Your task to perform on an android device: Open Google Maps and go to "Timeline" Image 0: 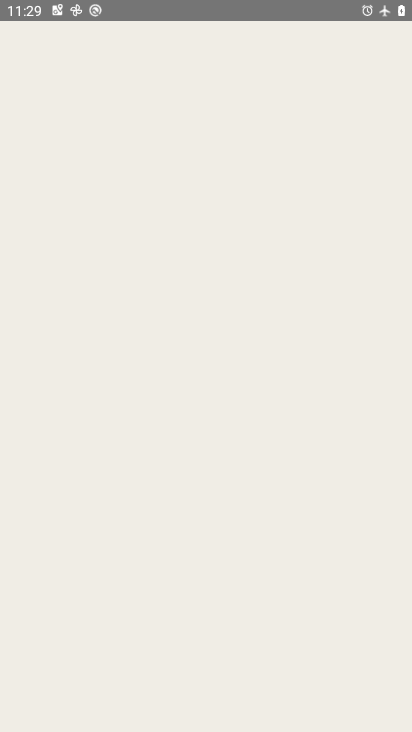
Step 0: press home button
Your task to perform on an android device: Open Google Maps and go to "Timeline" Image 1: 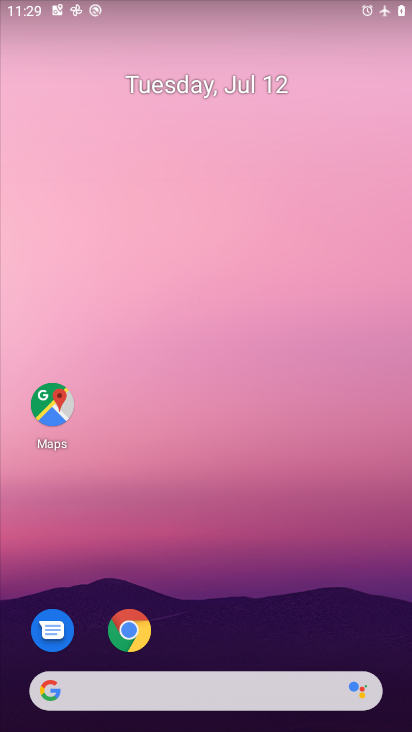
Step 1: press home button
Your task to perform on an android device: Open Google Maps and go to "Timeline" Image 2: 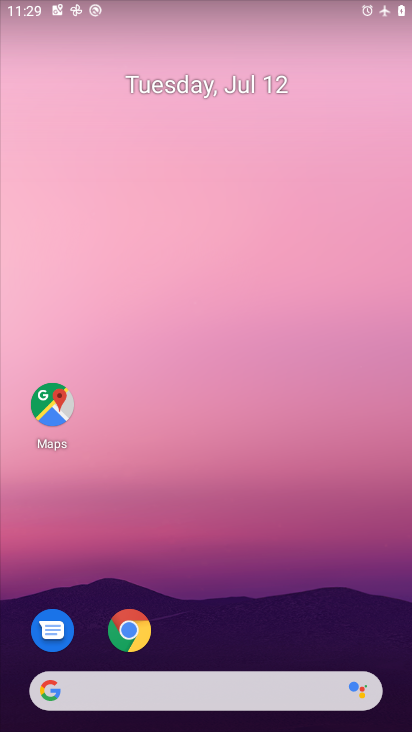
Step 2: click (46, 394)
Your task to perform on an android device: Open Google Maps and go to "Timeline" Image 3: 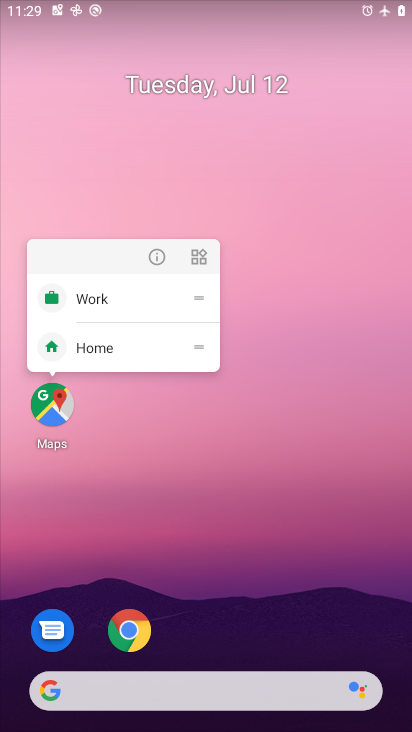
Step 3: click (42, 416)
Your task to perform on an android device: Open Google Maps and go to "Timeline" Image 4: 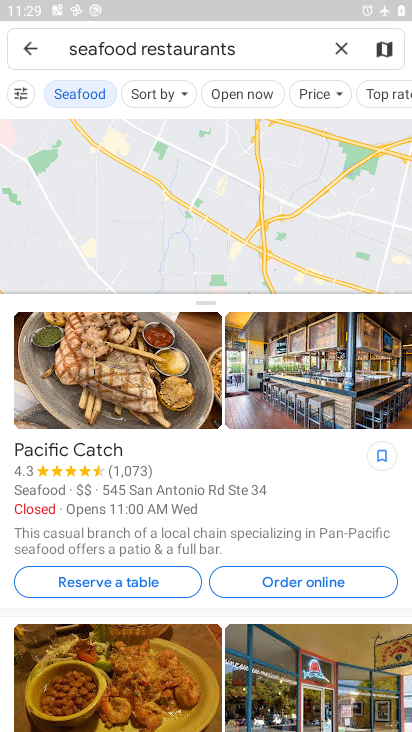
Step 4: click (29, 45)
Your task to perform on an android device: Open Google Maps and go to "Timeline" Image 5: 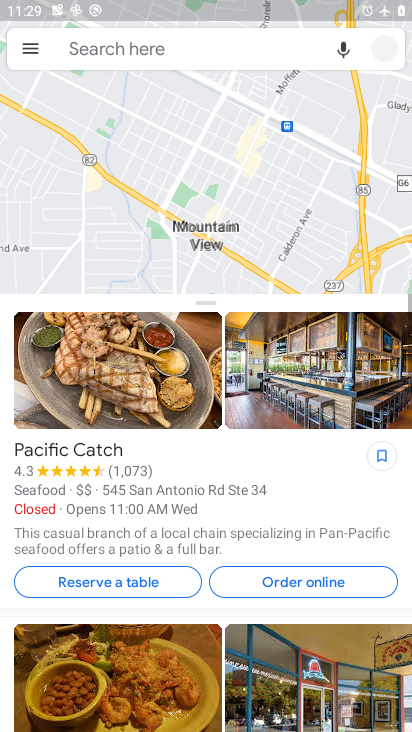
Step 5: click (27, 47)
Your task to perform on an android device: Open Google Maps and go to "Timeline" Image 6: 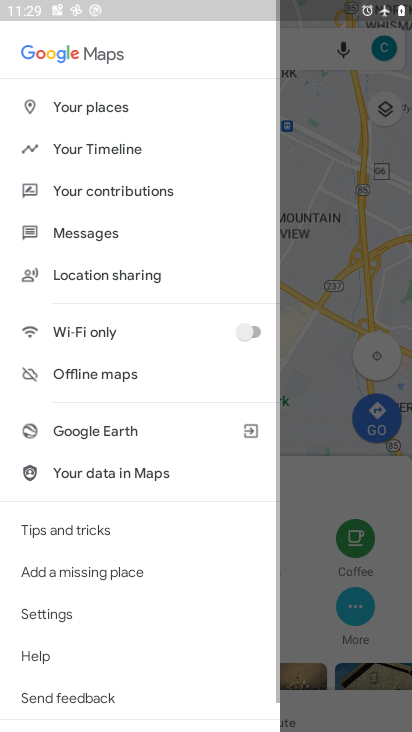
Step 6: click (35, 51)
Your task to perform on an android device: Open Google Maps and go to "Timeline" Image 7: 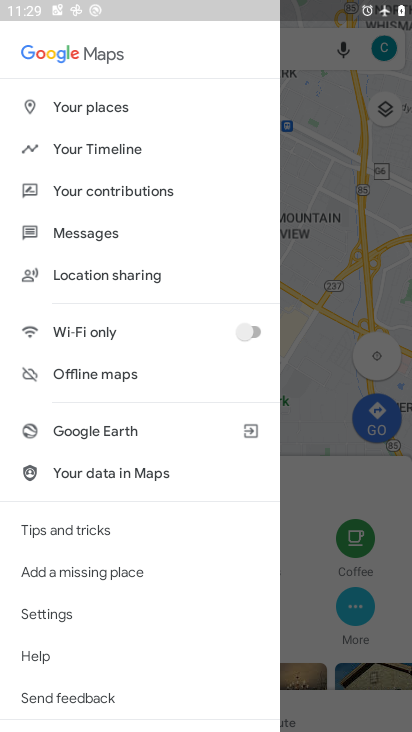
Step 7: click (77, 147)
Your task to perform on an android device: Open Google Maps and go to "Timeline" Image 8: 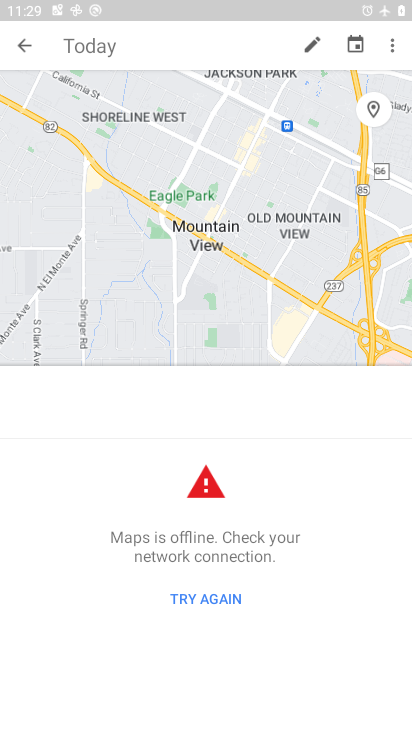
Step 8: click (218, 601)
Your task to perform on an android device: Open Google Maps and go to "Timeline" Image 9: 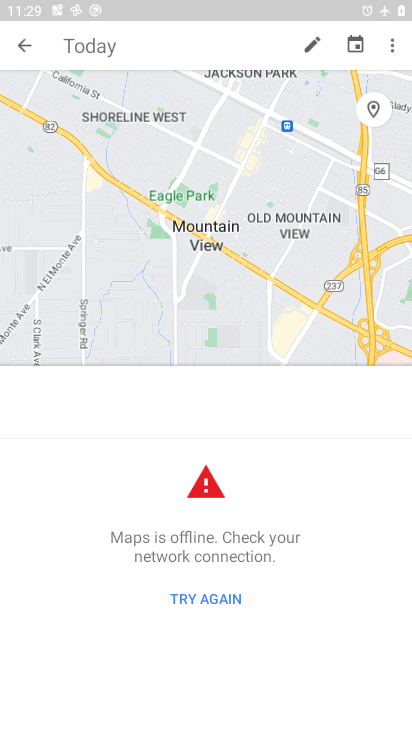
Step 9: task complete